Your task to perform on an android device: Go to Yahoo.com Image 0: 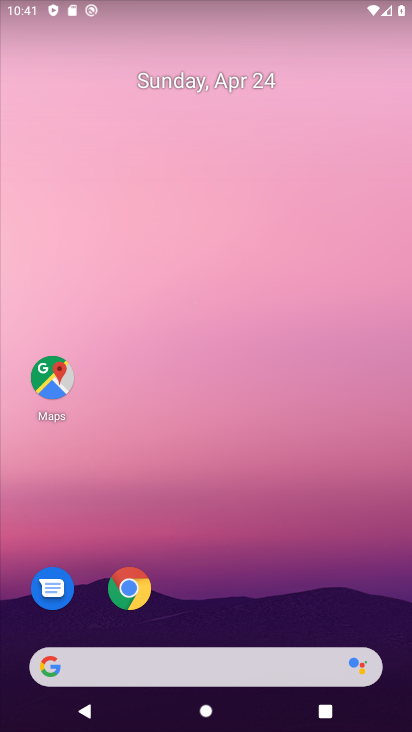
Step 0: drag from (260, 596) to (207, 102)
Your task to perform on an android device: Go to Yahoo.com Image 1: 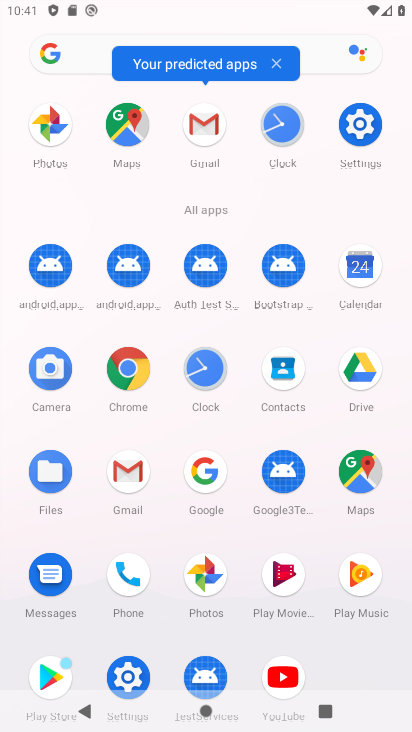
Step 1: click (128, 372)
Your task to perform on an android device: Go to Yahoo.com Image 2: 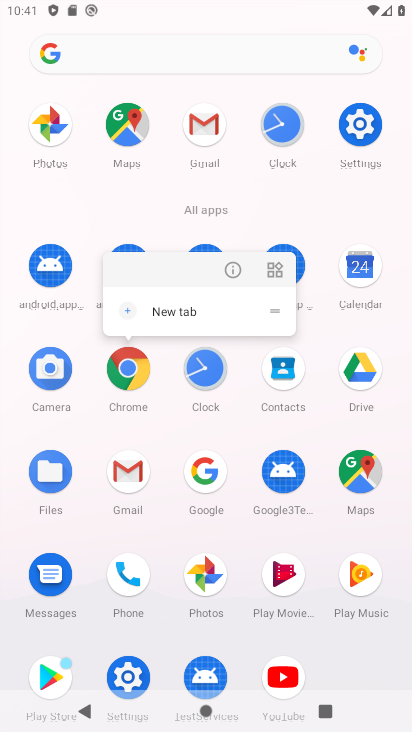
Step 2: click (133, 376)
Your task to perform on an android device: Go to Yahoo.com Image 3: 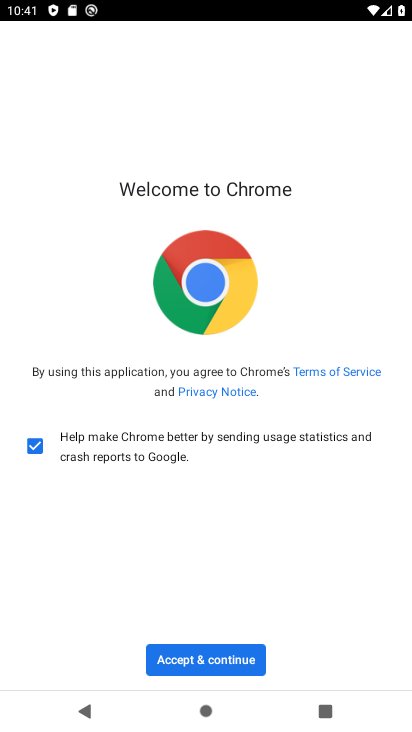
Step 3: click (233, 645)
Your task to perform on an android device: Go to Yahoo.com Image 4: 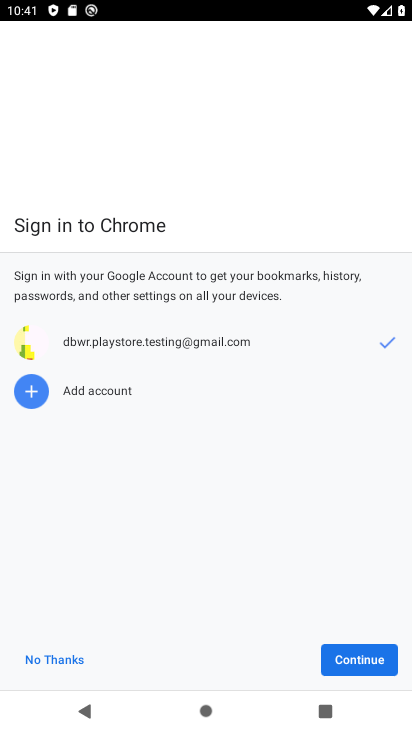
Step 4: click (371, 662)
Your task to perform on an android device: Go to Yahoo.com Image 5: 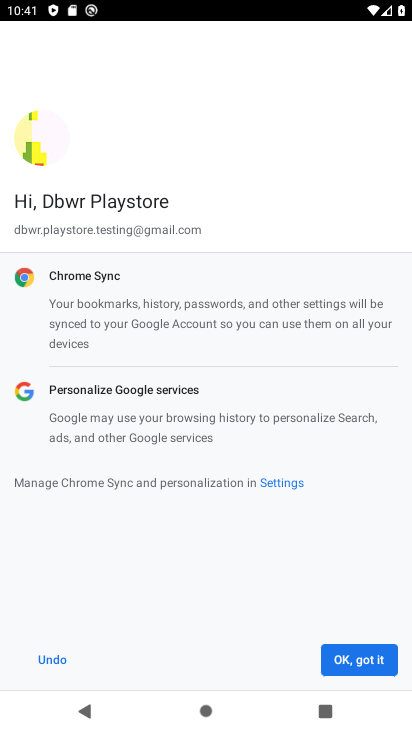
Step 5: click (371, 662)
Your task to perform on an android device: Go to Yahoo.com Image 6: 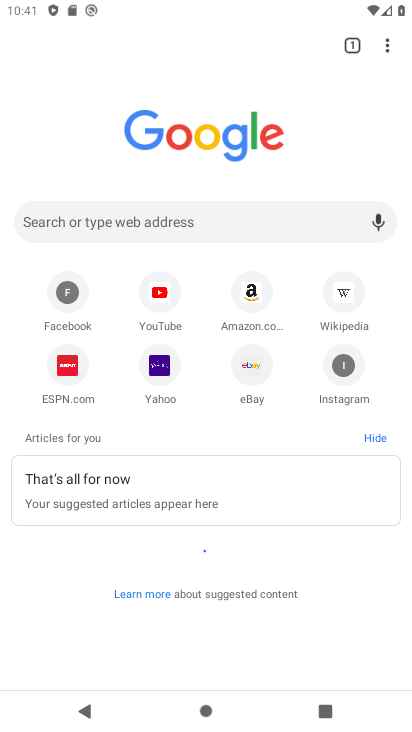
Step 6: click (158, 360)
Your task to perform on an android device: Go to Yahoo.com Image 7: 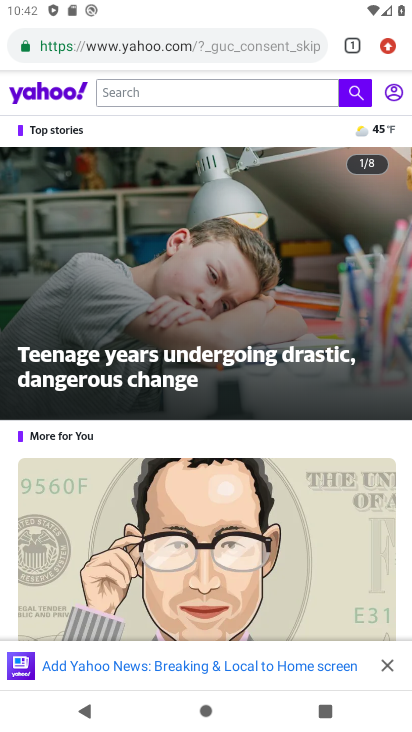
Step 7: task complete